Your task to perform on an android device: Open the map Image 0: 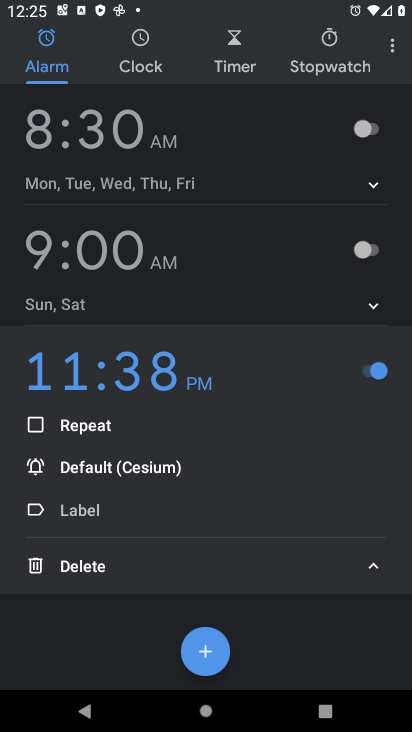
Step 0: press home button
Your task to perform on an android device: Open the map Image 1: 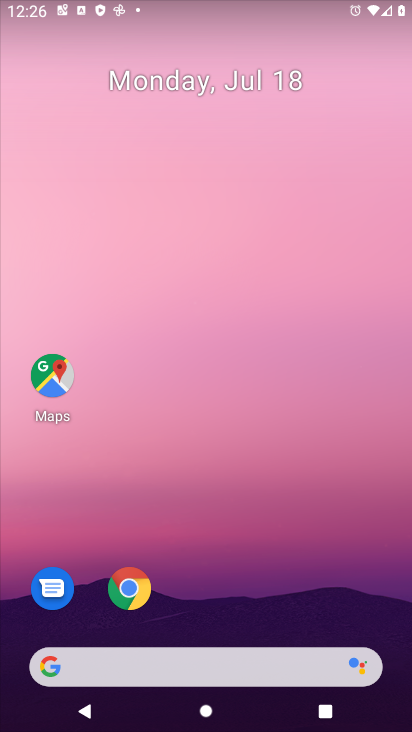
Step 1: drag from (194, 626) to (190, 75)
Your task to perform on an android device: Open the map Image 2: 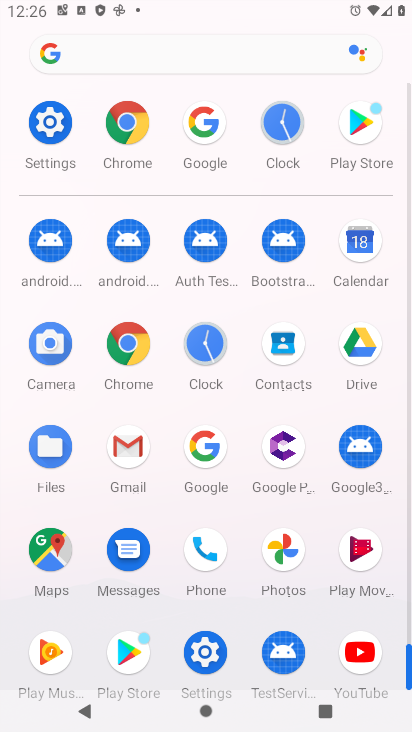
Step 2: click (59, 559)
Your task to perform on an android device: Open the map Image 3: 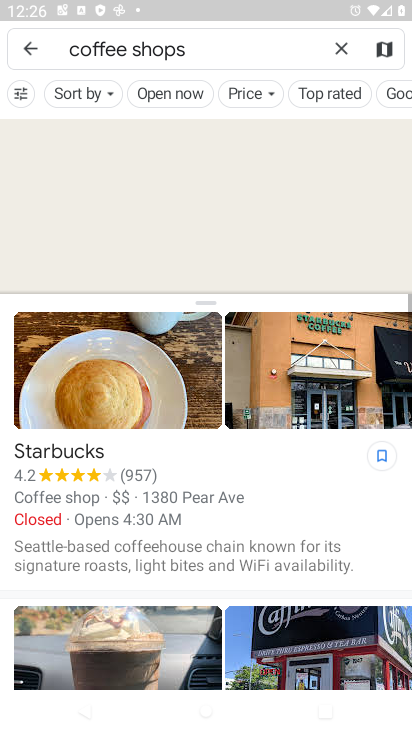
Step 3: task complete